Your task to perform on an android device: What's the weather going to be this weekend? Image 0: 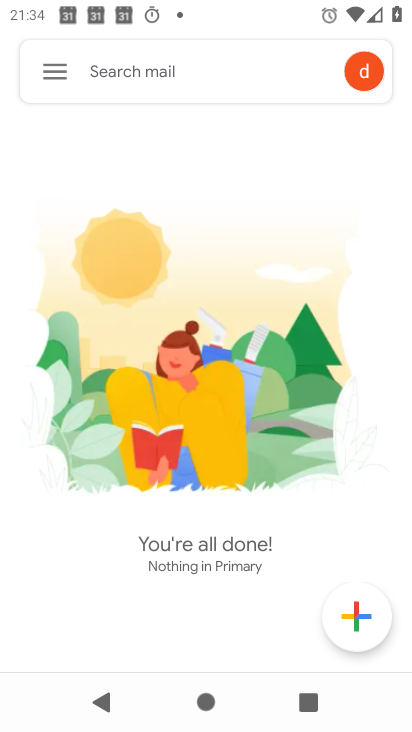
Step 0: press home button
Your task to perform on an android device: What's the weather going to be this weekend? Image 1: 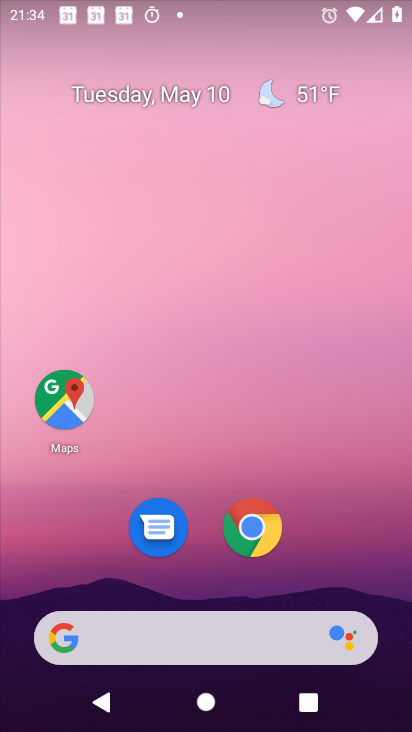
Step 1: drag from (220, 590) to (7, 126)
Your task to perform on an android device: What's the weather going to be this weekend? Image 2: 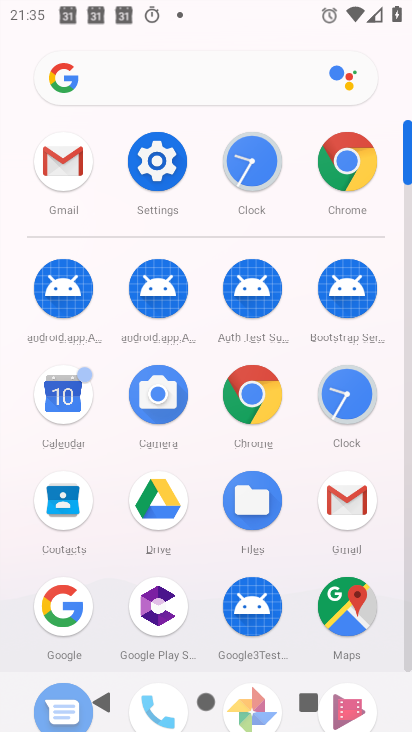
Step 2: click (75, 388)
Your task to perform on an android device: What's the weather going to be this weekend? Image 3: 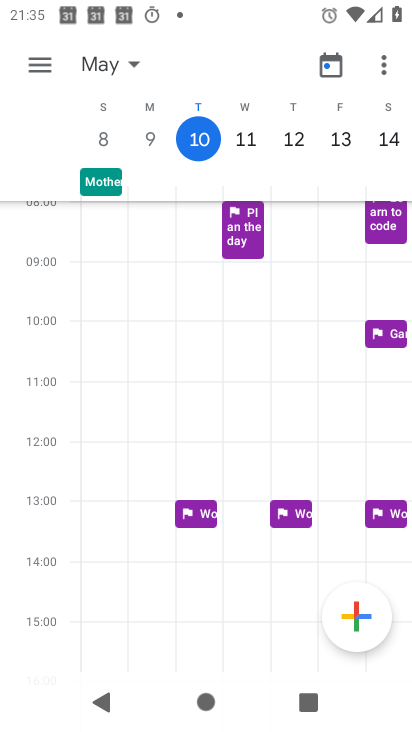
Step 3: task complete